Your task to perform on an android device: Go to Amazon Image 0: 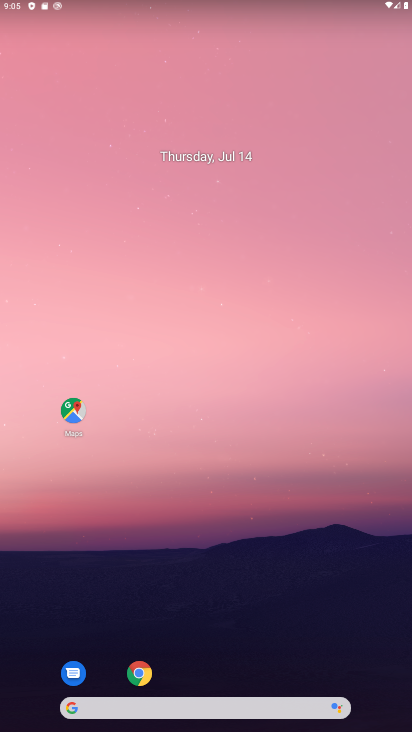
Step 0: drag from (388, 665) to (268, 176)
Your task to perform on an android device: Go to Amazon Image 1: 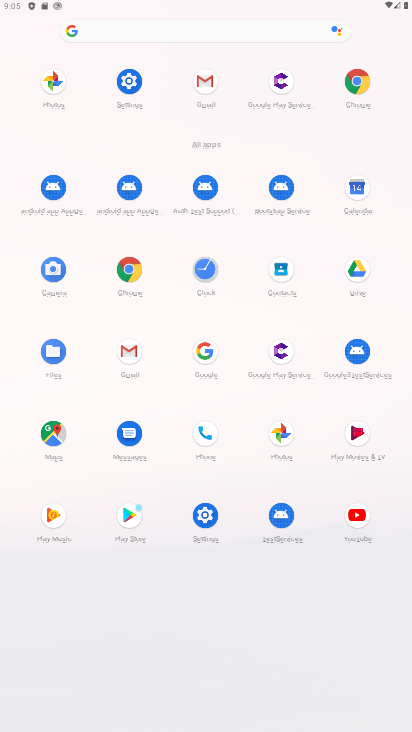
Step 1: click (361, 88)
Your task to perform on an android device: Go to Amazon Image 2: 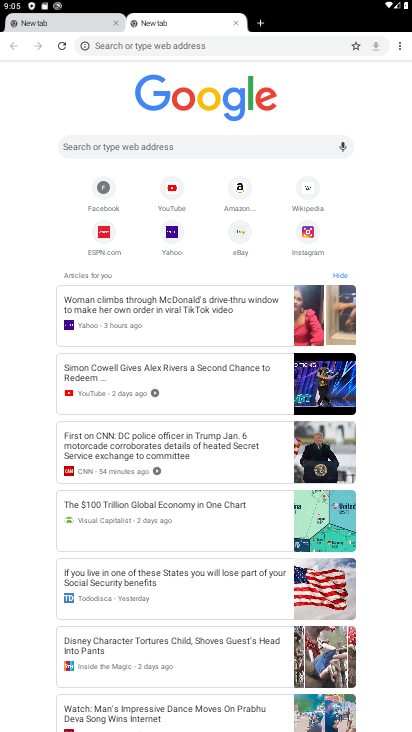
Step 2: click (242, 195)
Your task to perform on an android device: Go to Amazon Image 3: 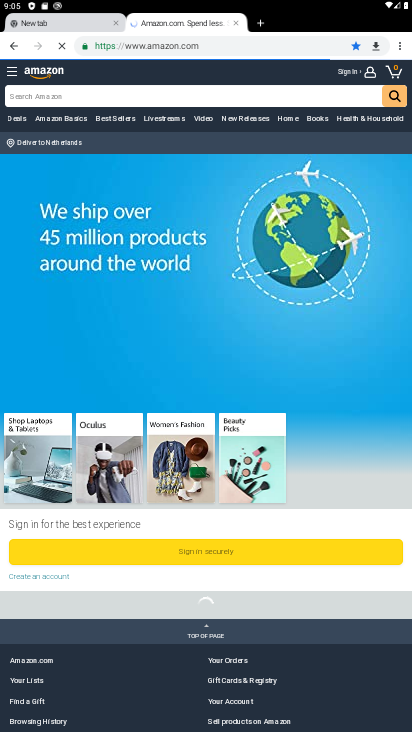
Step 3: task complete